Your task to perform on an android device: turn off translation in the chrome app Image 0: 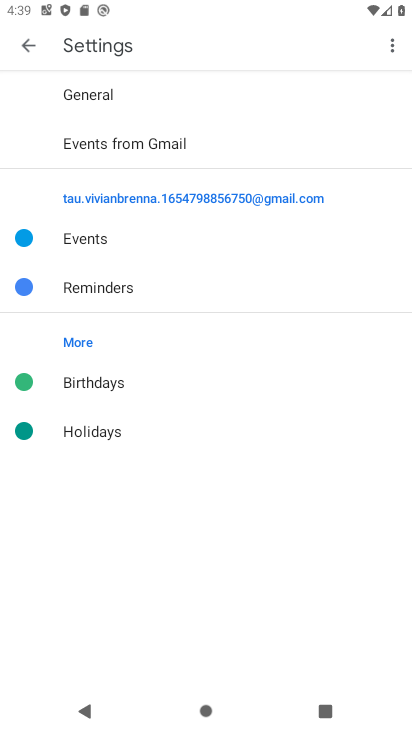
Step 0: press home button
Your task to perform on an android device: turn off translation in the chrome app Image 1: 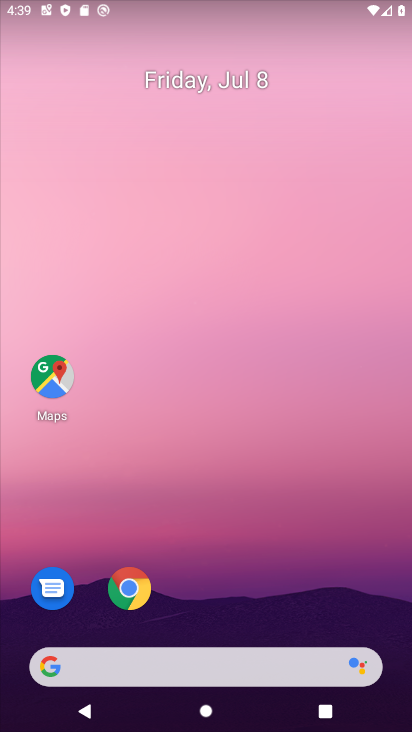
Step 1: drag from (183, 607) to (234, 0)
Your task to perform on an android device: turn off translation in the chrome app Image 2: 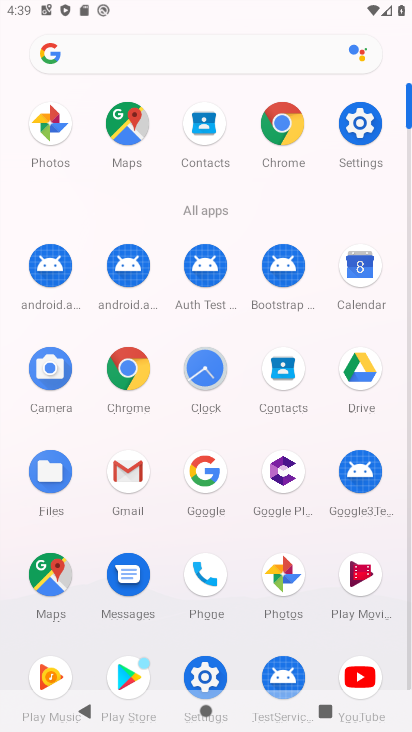
Step 2: click (128, 373)
Your task to perform on an android device: turn off translation in the chrome app Image 3: 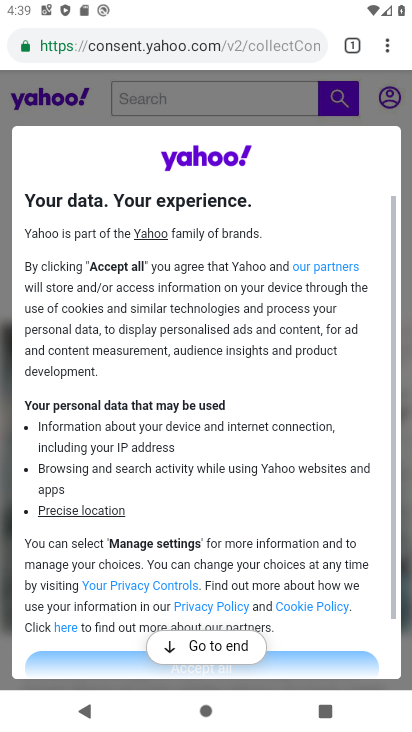
Step 3: click (385, 44)
Your task to perform on an android device: turn off translation in the chrome app Image 4: 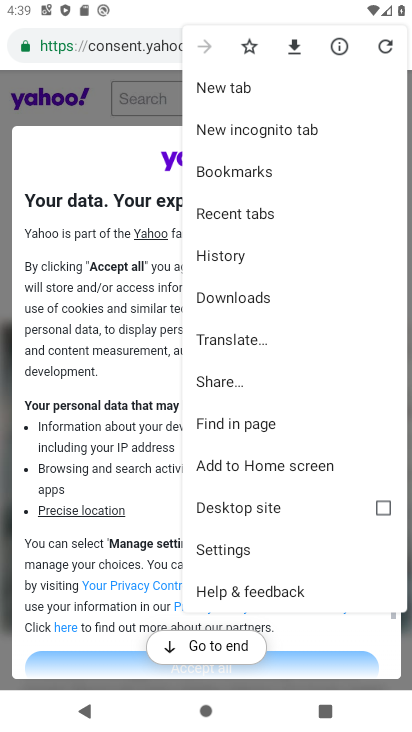
Step 4: click (253, 537)
Your task to perform on an android device: turn off translation in the chrome app Image 5: 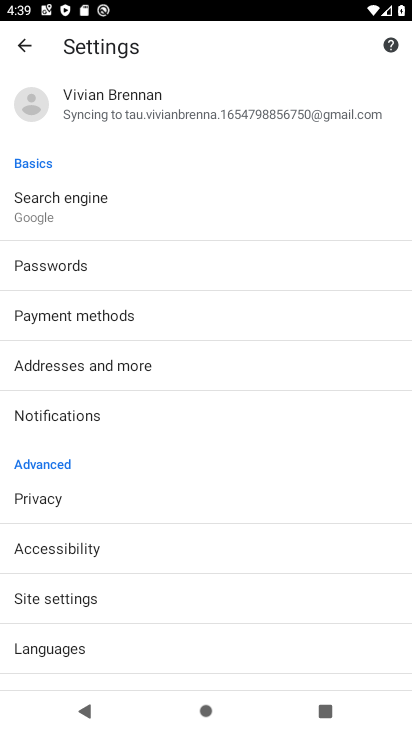
Step 5: drag from (67, 512) to (83, 348)
Your task to perform on an android device: turn off translation in the chrome app Image 6: 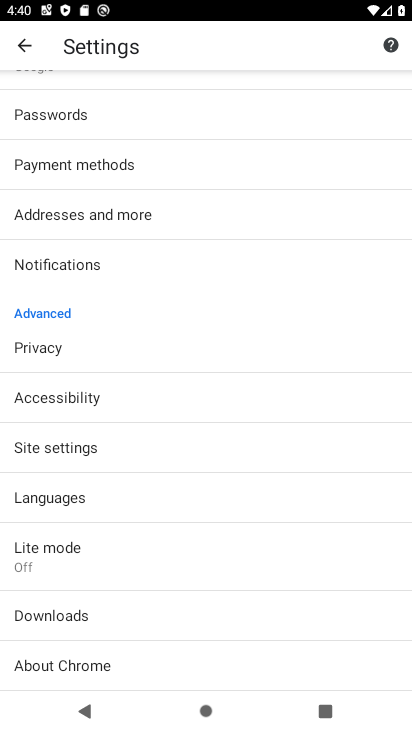
Step 6: click (66, 505)
Your task to perform on an android device: turn off translation in the chrome app Image 7: 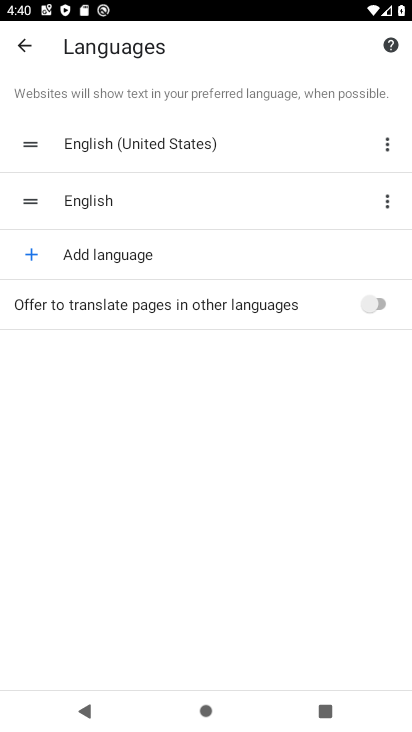
Step 7: task complete